Your task to perform on an android device: Open sound settings Image 0: 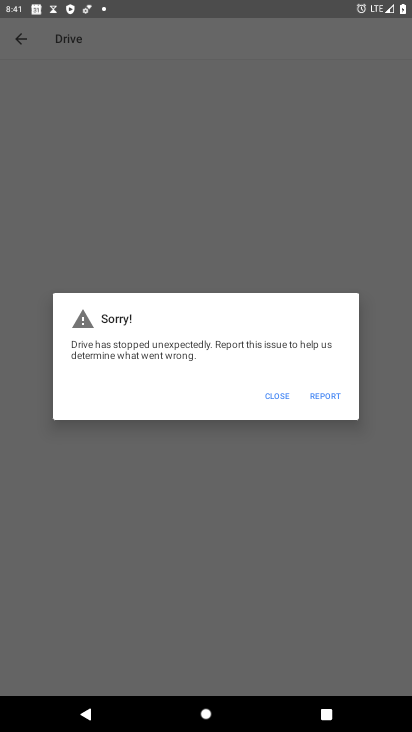
Step 0: press home button
Your task to perform on an android device: Open sound settings Image 1: 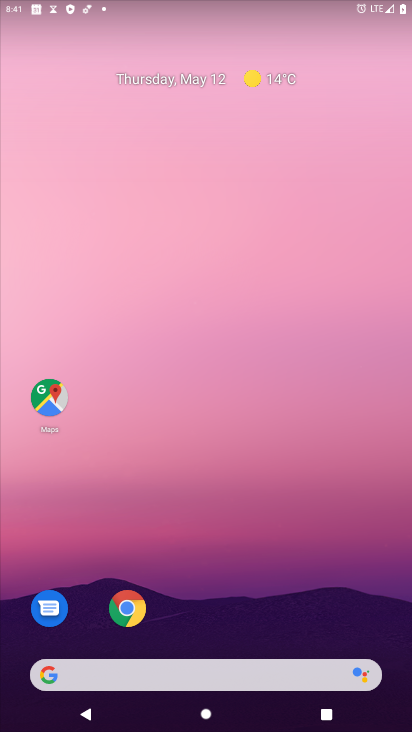
Step 1: drag from (204, 649) to (204, 339)
Your task to perform on an android device: Open sound settings Image 2: 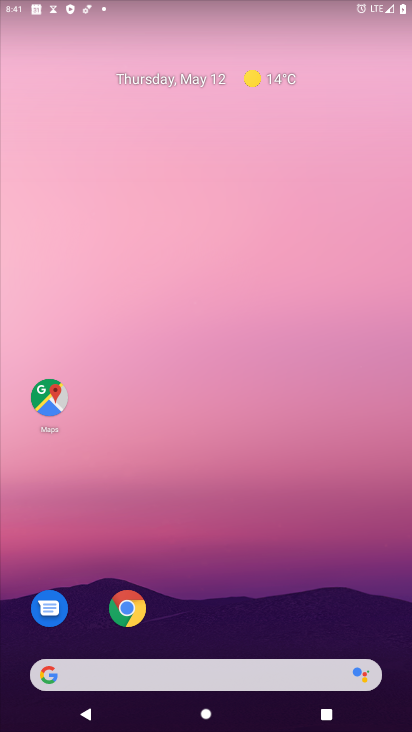
Step 2: drag from (189, 662) to (259, 247)
Your task to perform on an android device: Open sound settings Image 3: 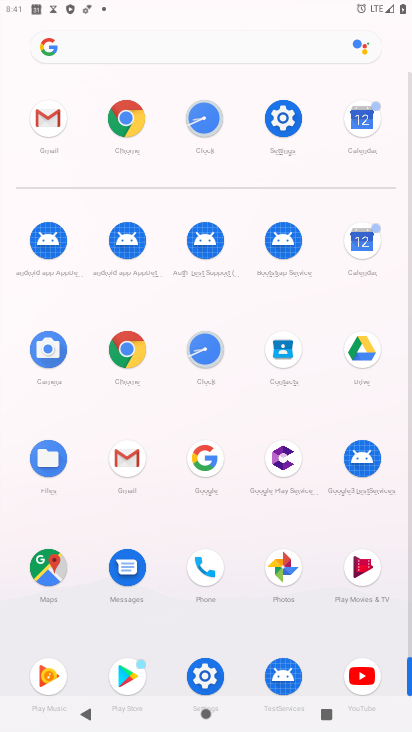
Step 3: click (279, 110)
Your task to perform on an android device: Open sound settings Image 4: 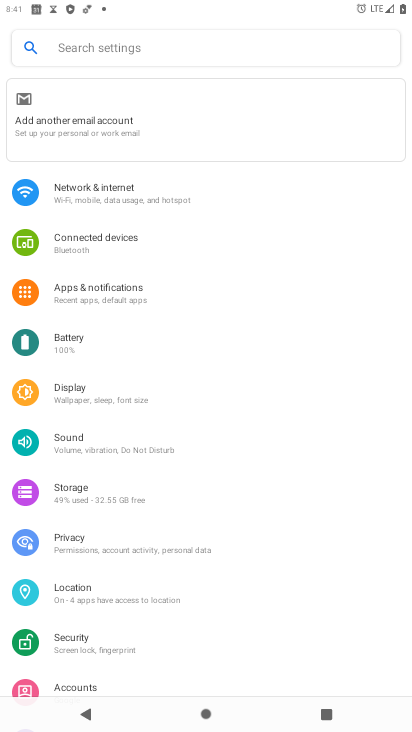
Step 4: click (93, 444)
Your task to perform on an android device: Open sound settings Image 5: 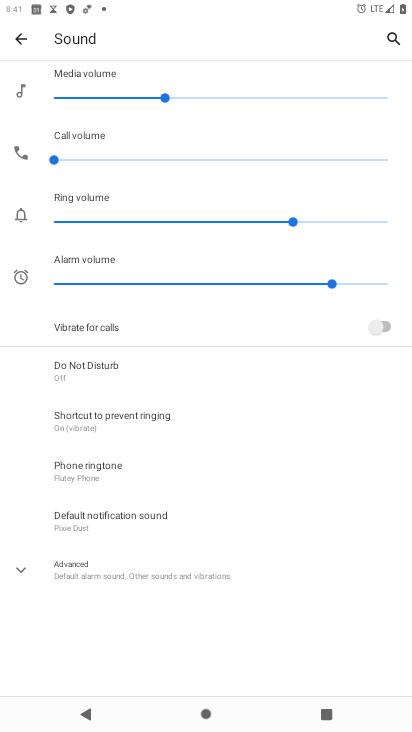
Step 5: click (92, 570)
Your task to perform on an android device: Open sound settings Image 6: 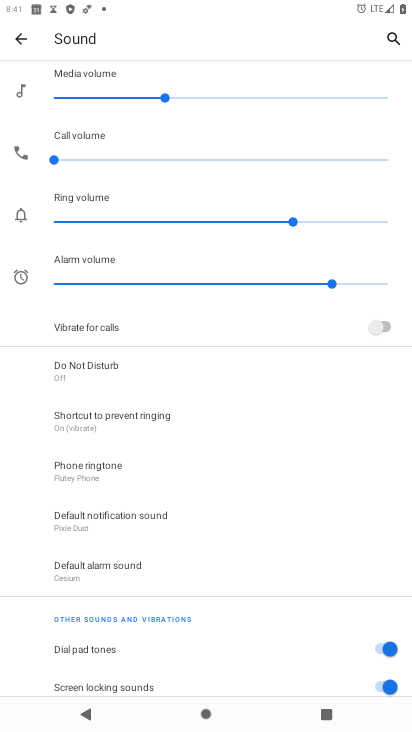
Step 6: task complete